Your task to perform on an android device: delete a single message in the gmail app Image 0: 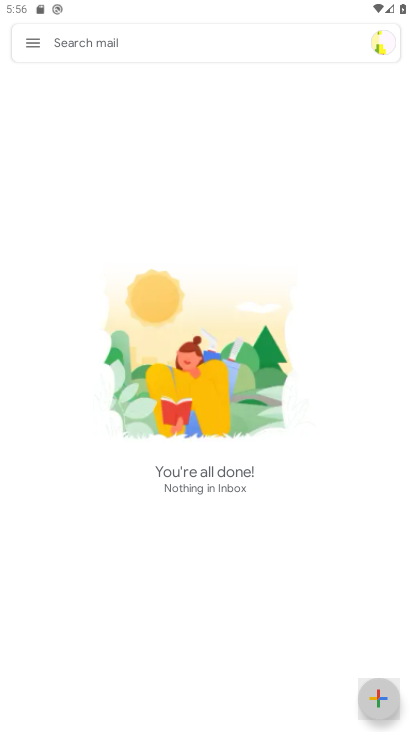
Step 0: click (29, 47)
Your task to perform on an android device: delete a single message in the gmail app Image 1: 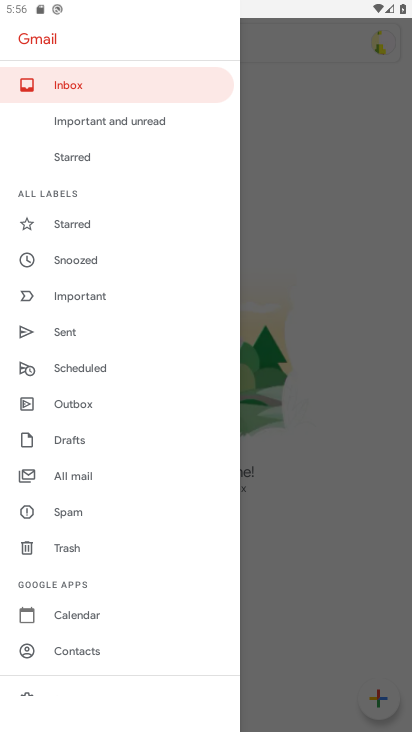
Step 1: click (109, 469)
Your task to perform on an android device: delete a single message in the gmail app Image 2: 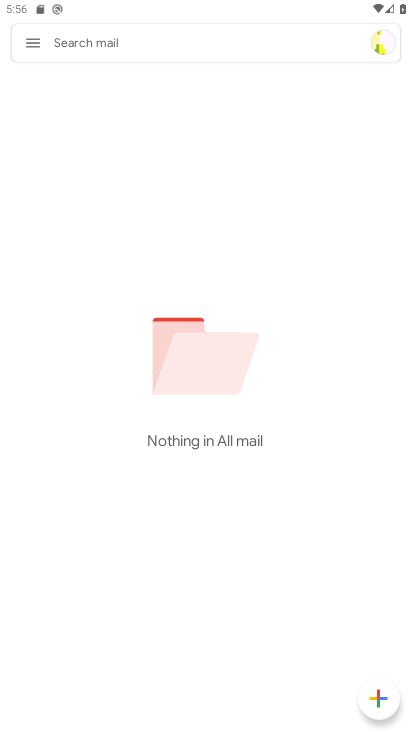
Step 2: task complete